Your task to perform on an android device: Do I have any events this weekend? Image 0: 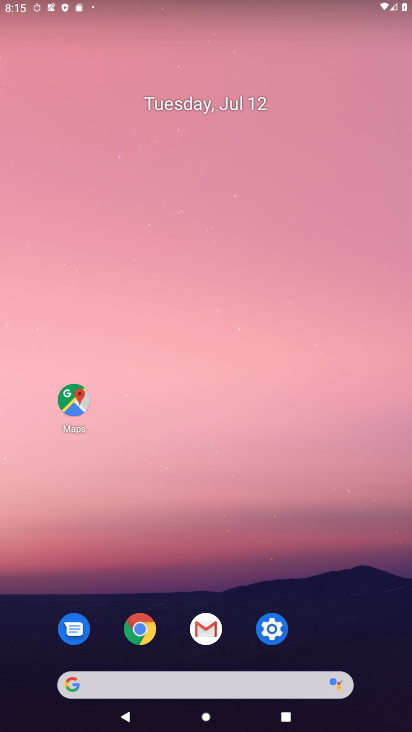
Step 0: drag from (267, 358) to (262, 176)
Your task to perform on an android device: Do I have any events this weekend? Image 1: 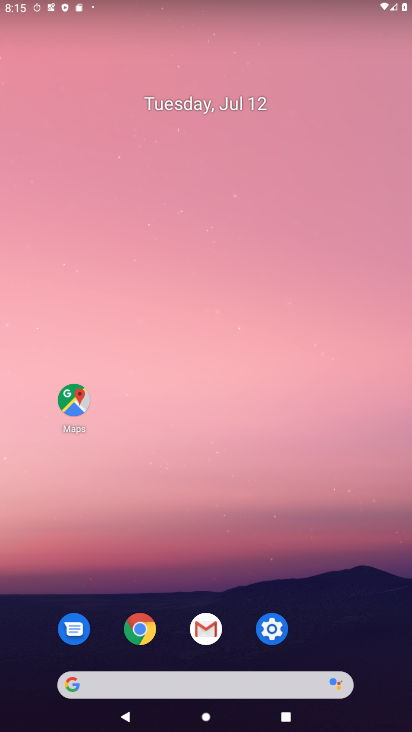
Step 1: drag from (176, 690) to (263, 68)
Your task to perform on an android device: Do I have any events this weekend? Image 2: 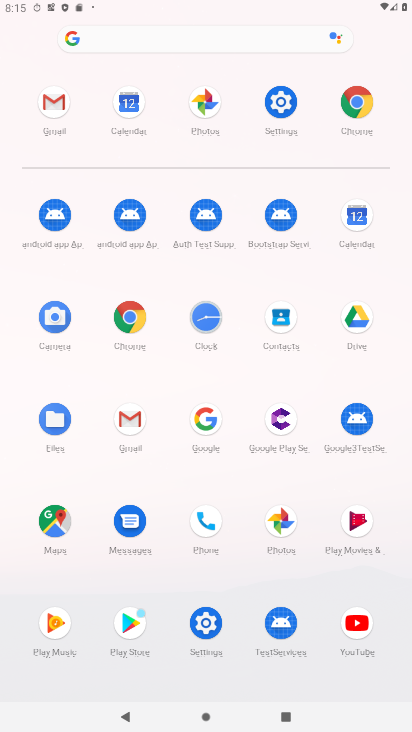
Step 2: click (357, 236)
Your task to perform on an android device: Do I have any events this weekend? Image 3: 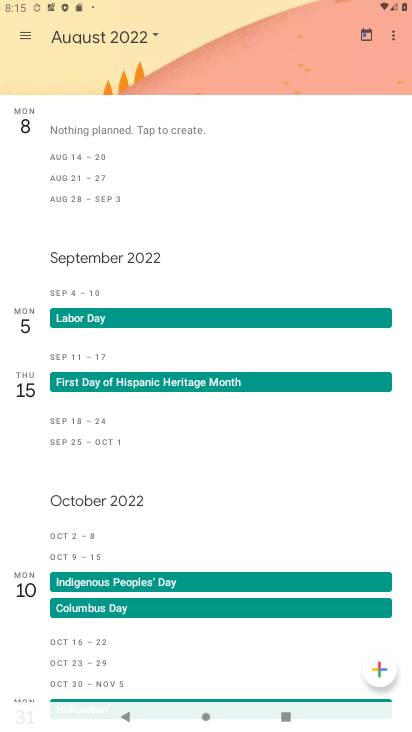
Step 3: click (31, 49)
Your task to perform on an android device: Do I have any events this weekend? Image 4: 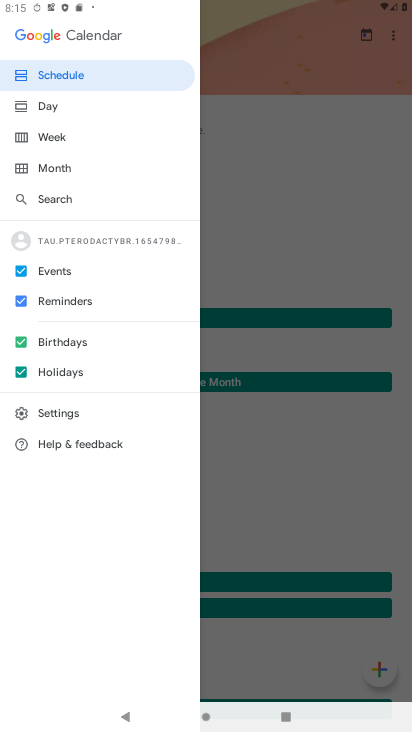
Step 4: click (244, 369)
Your task to perform on an android device: Do I have any events this weekend? Image 5: 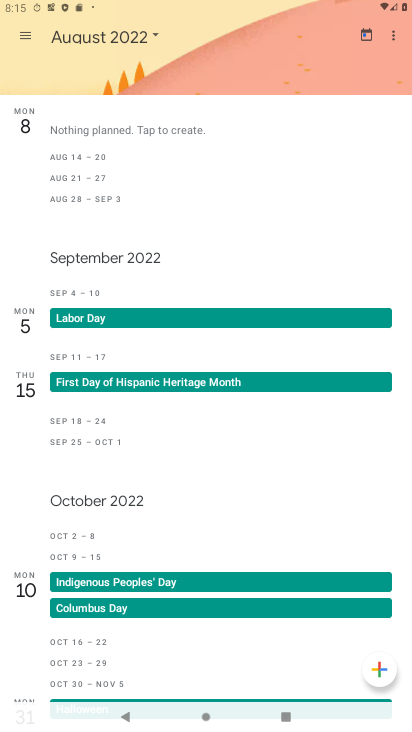
Step 5: click (22, 37)
Your task to perform on an android device: Do I have any events this weekend? Image 6: 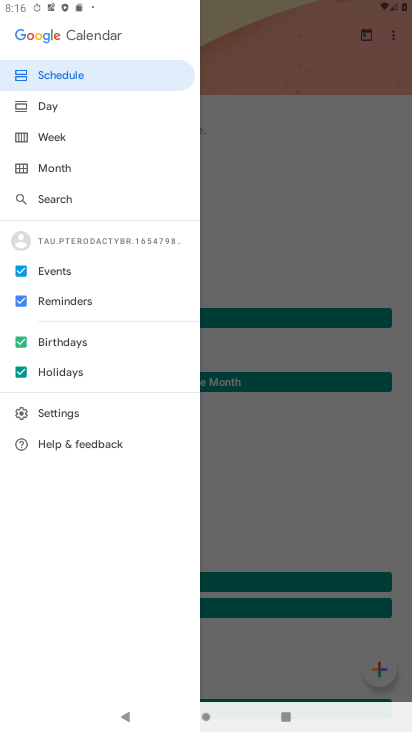
Step 6: click (67, 170)
Your task to perform on an android device: Do I have any events this weekend? Image 7: 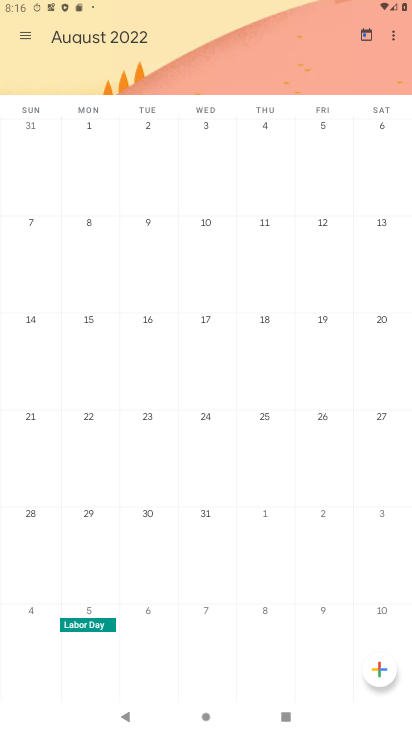
Step 7: drag from (57, 400) to (408, 276)
Your task to perform on an android device: Do I have any events this weekend? Image 8: 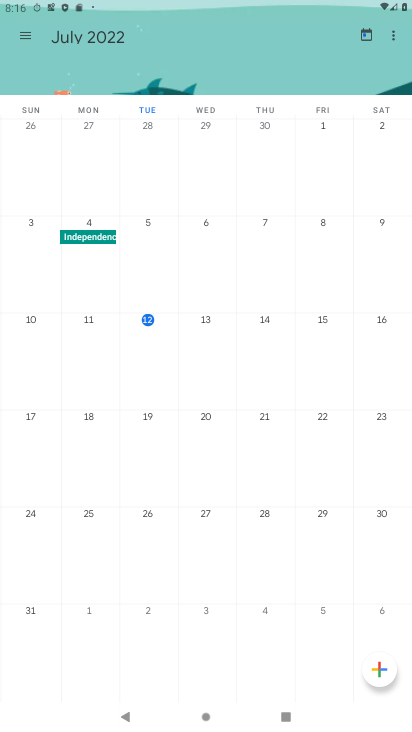
Step 8: click (155, 356)
Your task to perform on an android device: Do I have any events this weekend? Image 9: 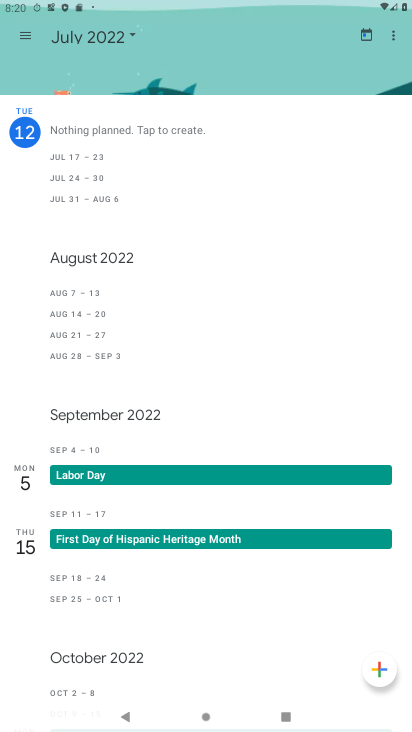
Step 9: task complete